Your task to perform on an android device: Search for pizza restaurants on Maps Image 0: 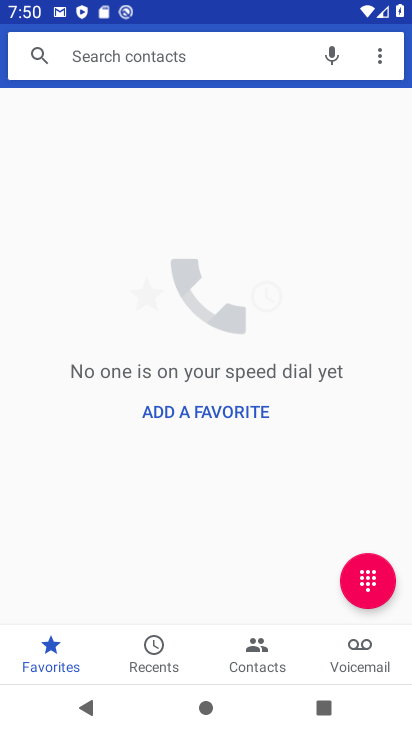
Step 0: press home button
Your task to perform on an android device: Search for pizza restaurants on Maps Image 1: 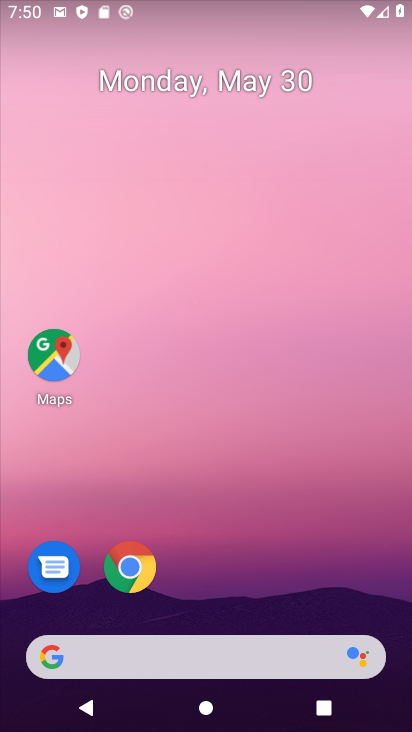
Step 1: click (76, 327)
Your task to perform on an android device: Search for pizza restaurants on Maps Image 2: 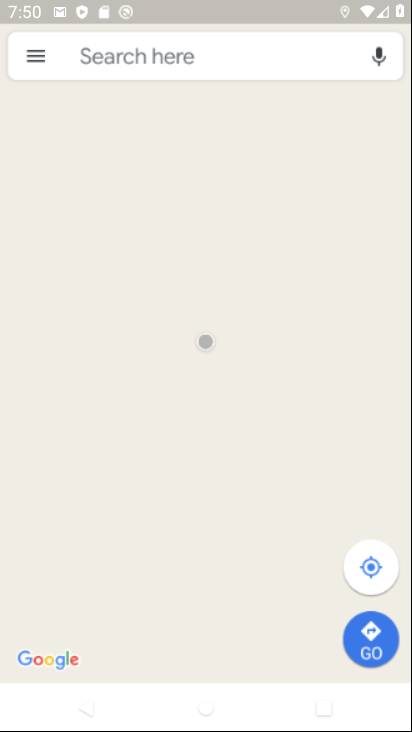
Step 2: task complete